Your task to perform on an android device: turn off airplane mode Image 0: 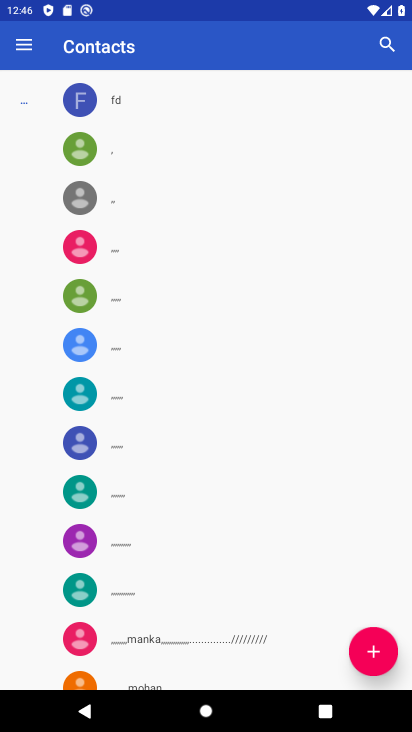
Step 0: press home button
Your task to perform on an android device: turn off airplane mode Image 1: 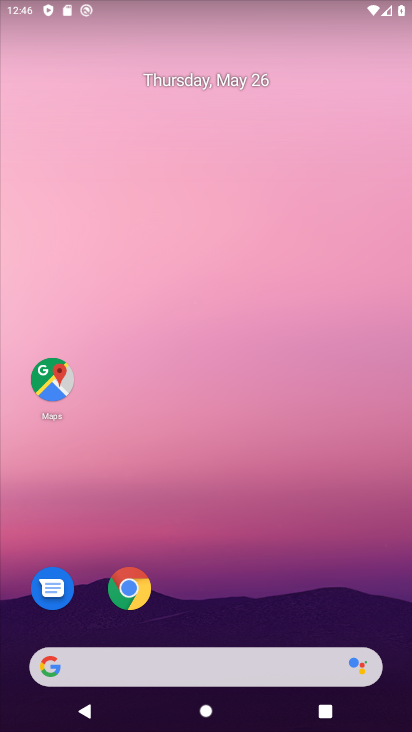
Step 1: drag from (382, 653) to (321, 89)
Your task to perform on an android device: turn off airplane mode Image 2: 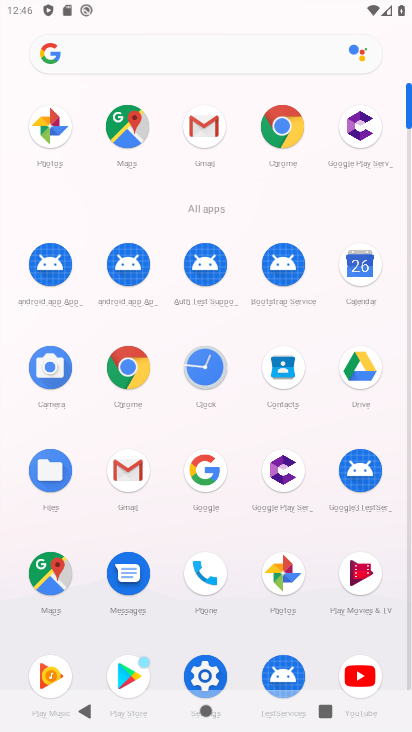
Step 2: click (201, 679)
Your task to perform on an android device: turn off airplane mode Image 3: 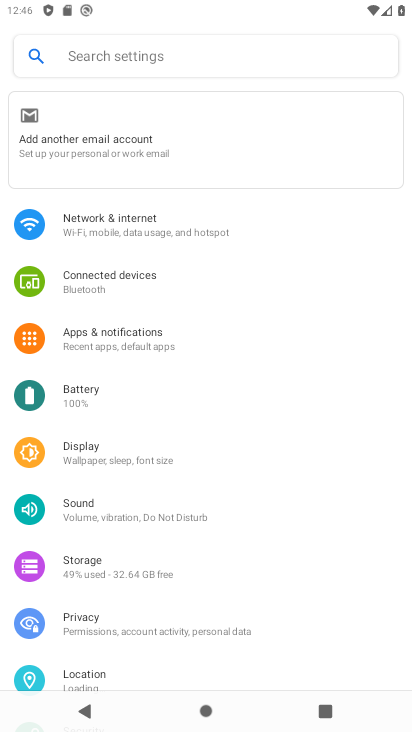
Step 3: click (102, 203)
Your task to perform on an android device: turn off airplane mode Image 4: 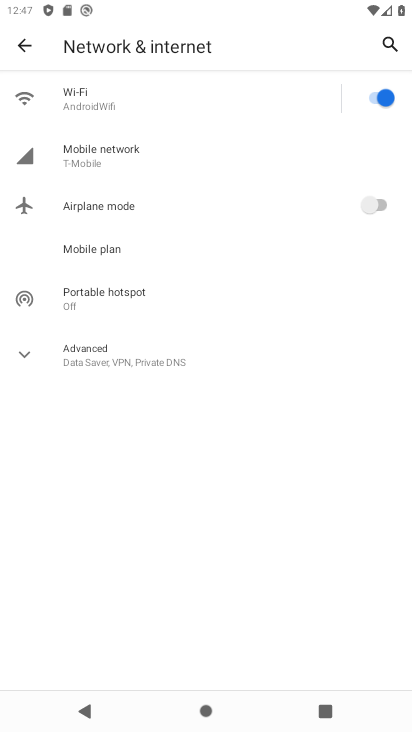
Step 4: task complete